Your task to perform on an android device: star an email in the gmail app Image 0: 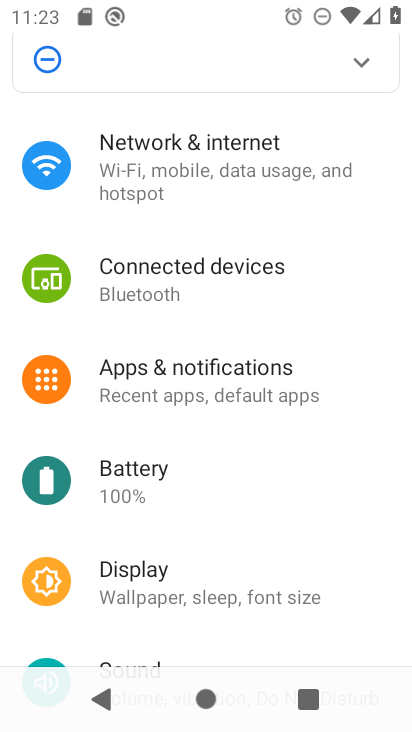
Step 0: drag from (242, 611) to (260, 134)
Your task to perform on an android device: star an email in the gmail app Image 1: 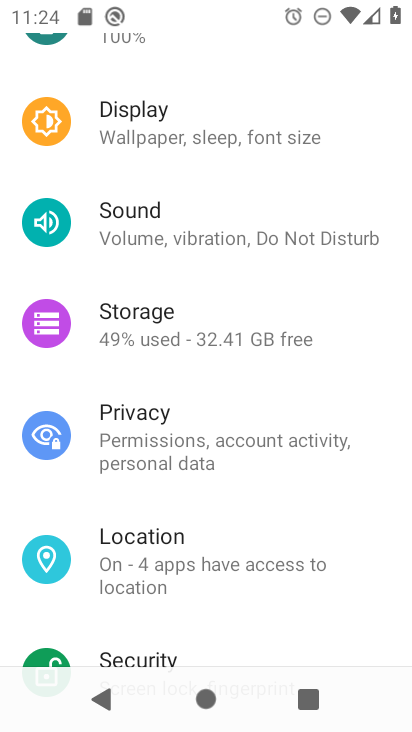
Step 1: press home button
Your task to perform on an android device: star an email in the gmail app Image 2: 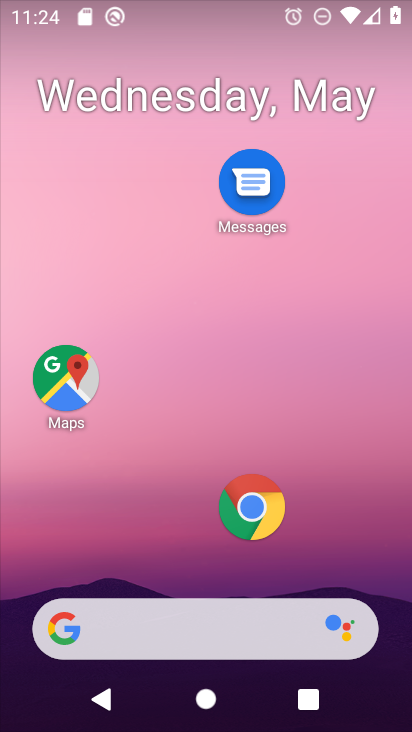
Step 2: drag from (202, 573) to (203, 103)
Your task to perform on an android device: star an email in the gmail app Image 3: 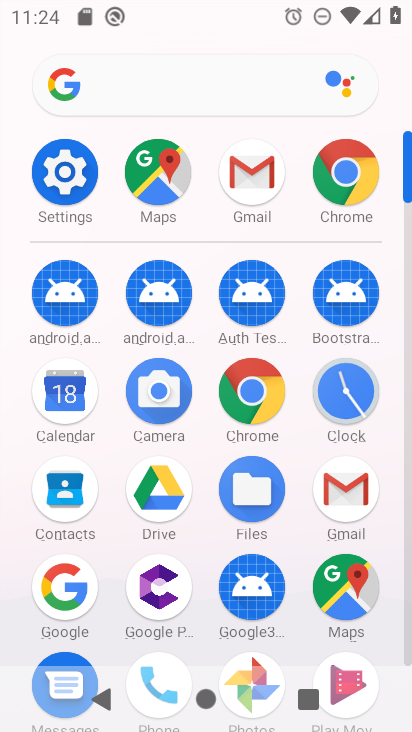
Step 3: click (344, 479)
Your task to perform on an android device: star an email in the gmail app Image 4: 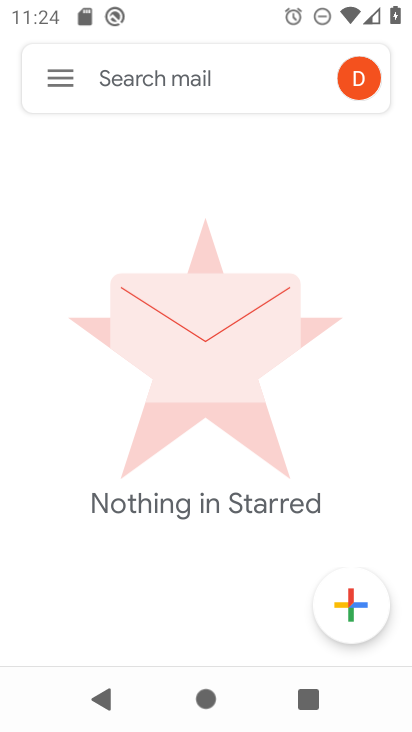
Step 4: task complete